Your task to perform on an android device: set an alarm Image 0: 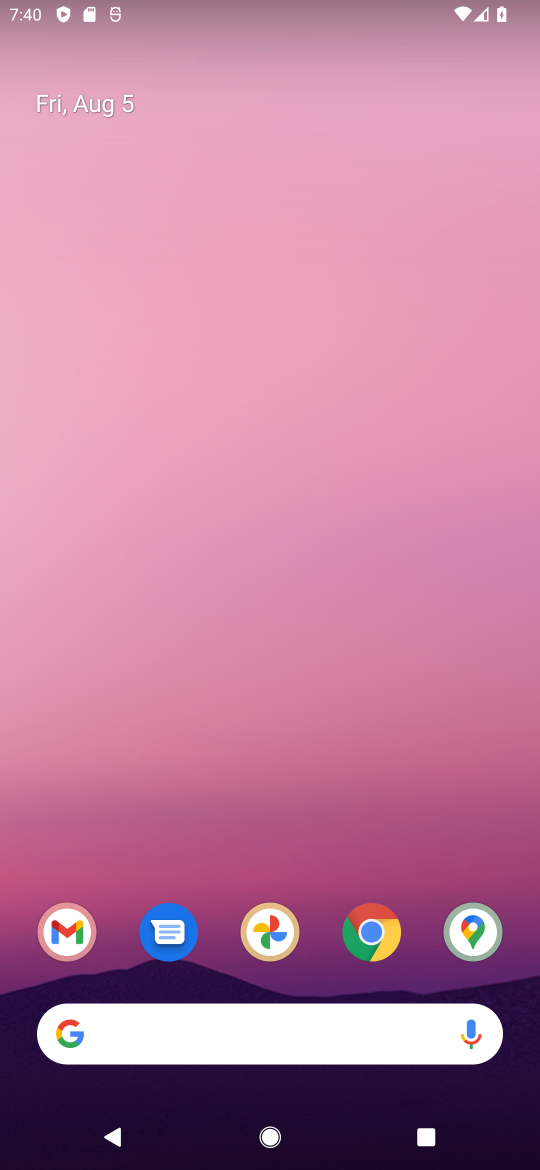
Step 0: drag from (404, 846) to (300, 1)
Your task to perform on an android device: set an alarm Image 1: 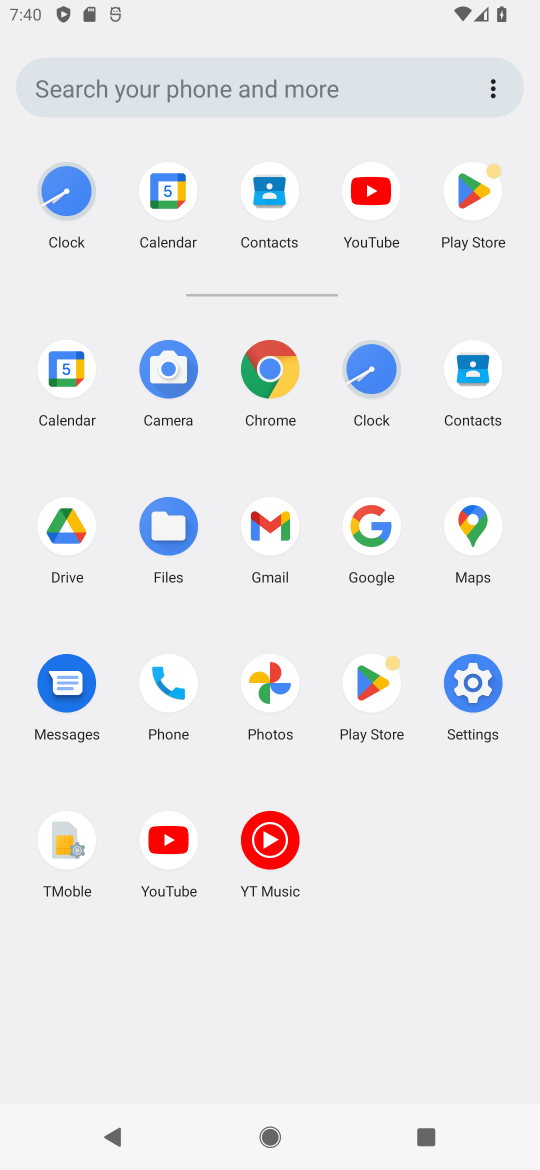
Step 1: click (365, 375)
Your task to perform on an android device: set an alarm Image 2: 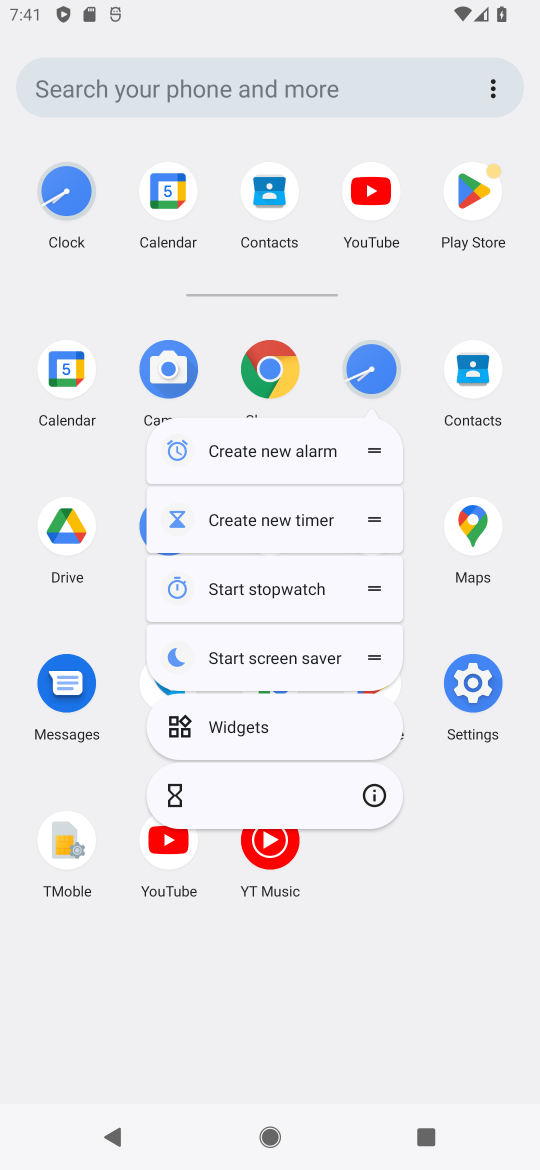
Step 2: click (368, 367)
Your task to perform on an android device: set an alarm Image 3: 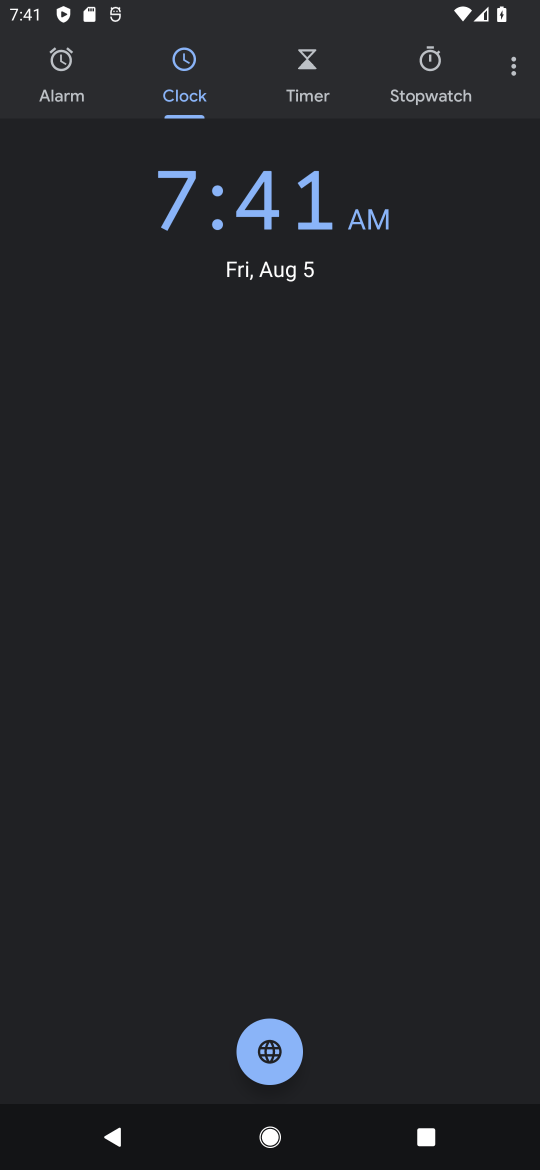
Step 3: click (59, 68)
Your task to perform on an android device: set an alarm Image 4: 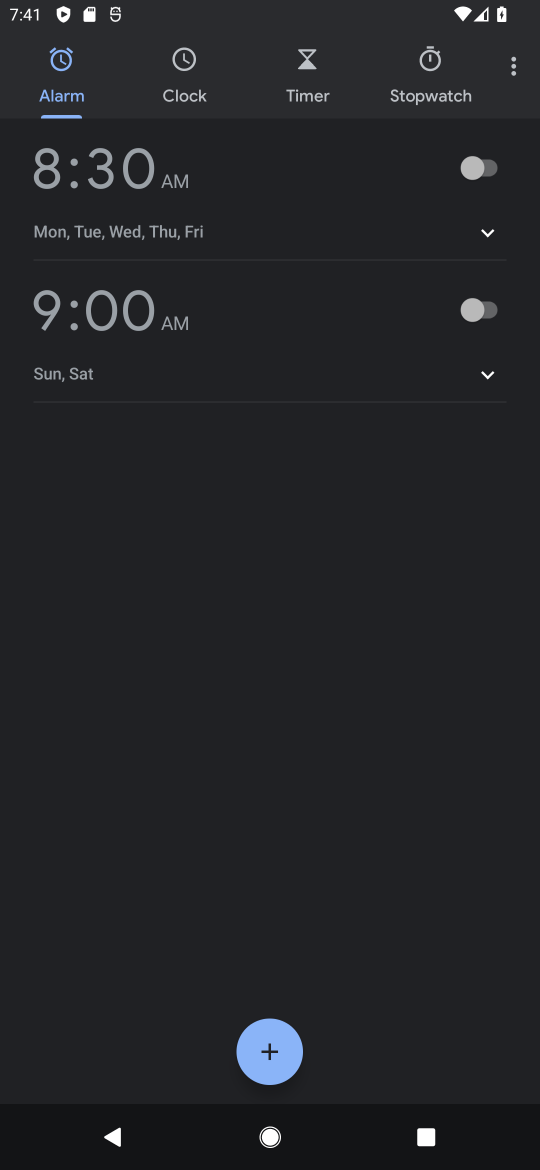
Step 4: click (274, 1044)
Your task to perform on an android device: set an alarm Image 5: 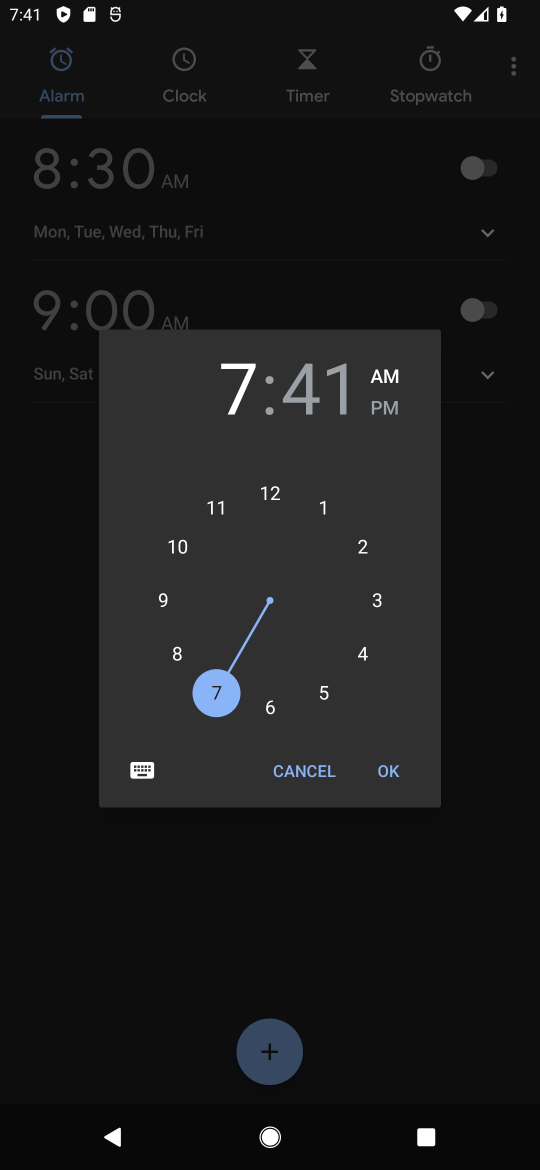
Step 5: click (378, 779)
Your task to perform on an android device: set an alarm Image 6: 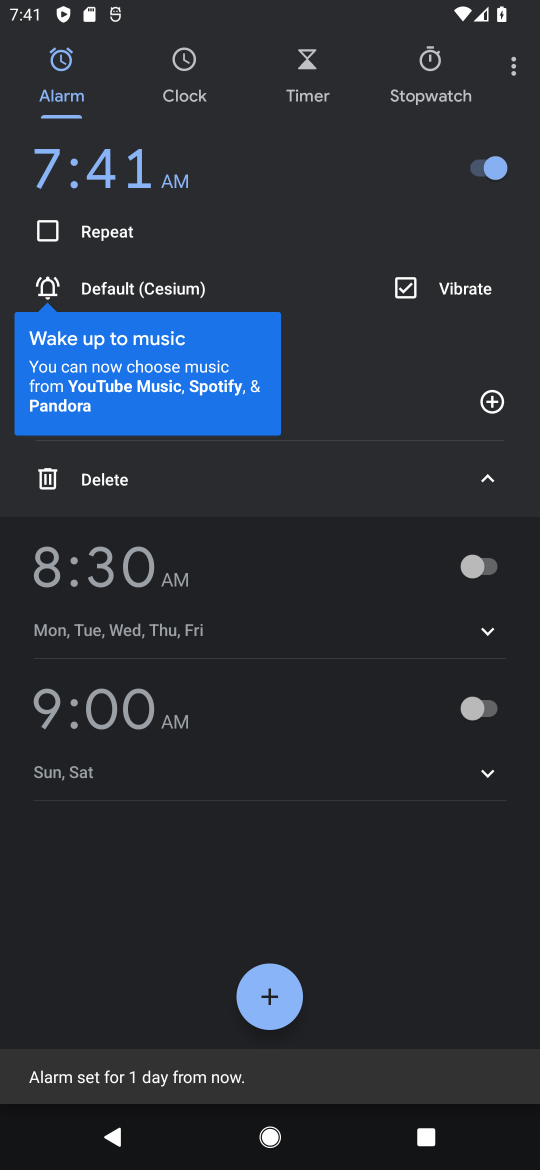
Step 6: task complete